Your task to perform on an android device: Go to settings Image 0: 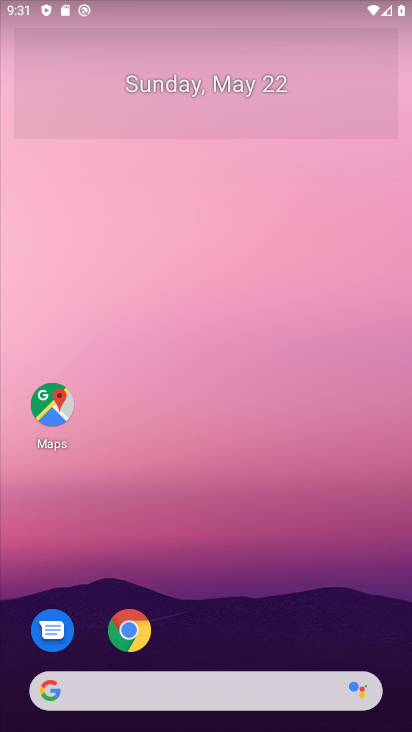
Step 0: drag from (393, 672) to (366, 212)
Your task to perform on an android device: Go to settings Image 1: 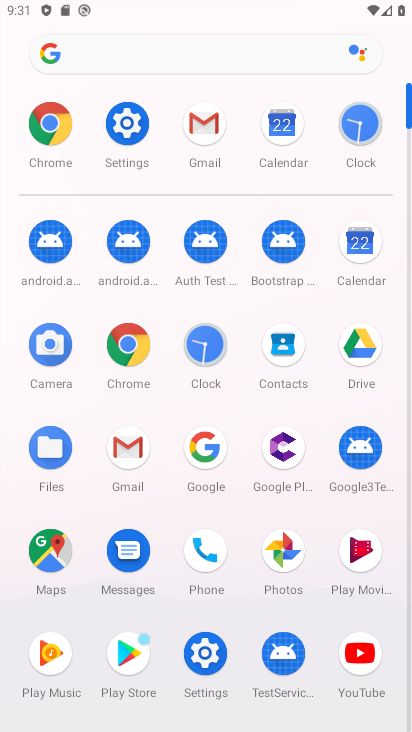
Step 1: click (194, 653)
Your task to perform on an android device: Go to settings Image 2: 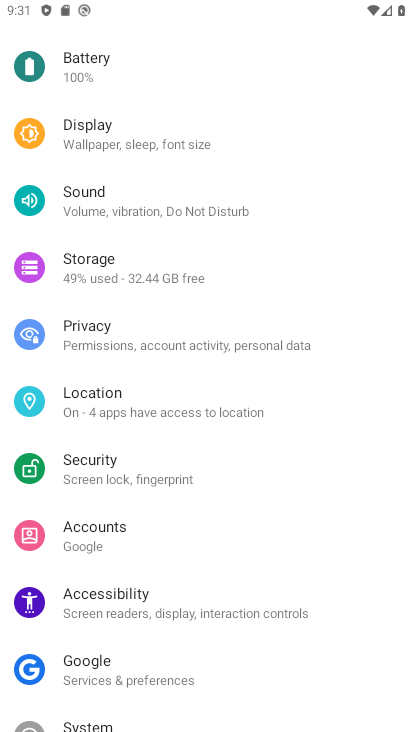
Step 2: task complete